Your task to perform on an android device: Open privacy settings Image 0: 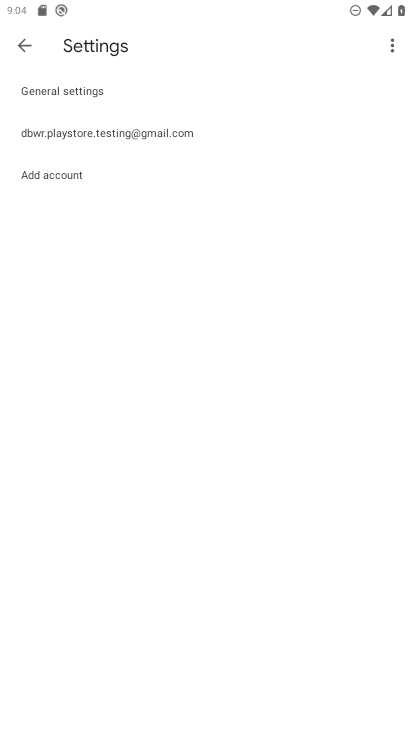
Step 0: press home button
Your task to perform on an android device: Open privacy settings Image 1: 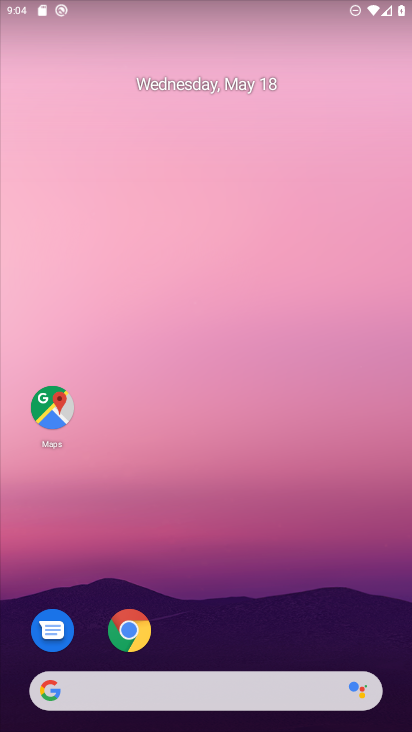
Step 1: drag from (224, 663) to (219, 69)
Your task to perform on an android device: Open privacy settings Image 2: 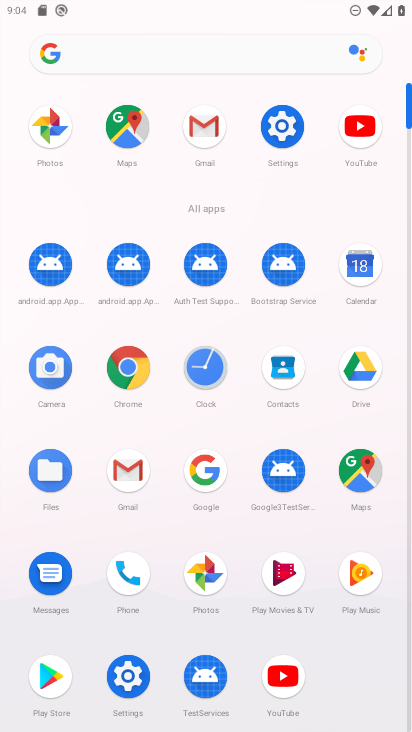
Step 2: click (124, 675)
Your task to perform on an android device: Open privacy settings Image 3: 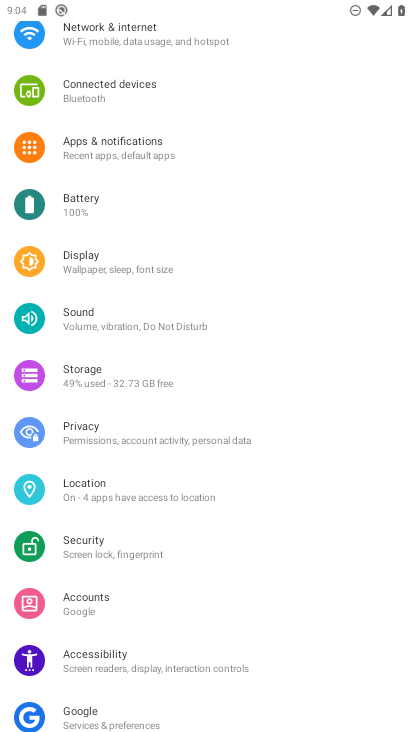
Step 3: click (100, 446)
Your task to perform on an android device: Open privacy settings Image 4: 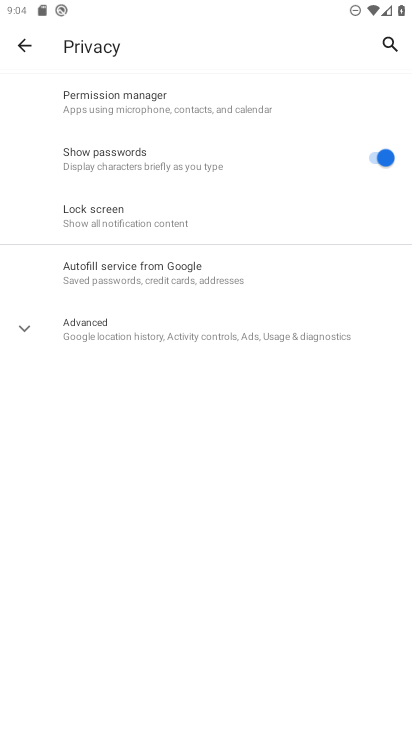
Step 4: click (127, 330)
Your task to perform on an android device: Open privacy settings Image 5: 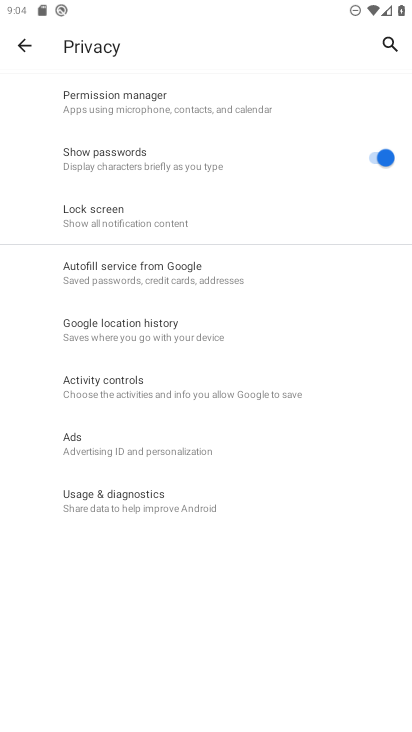
Step 5: task complete